Your task to perform on an android device: Go to privacy settings Image 0: 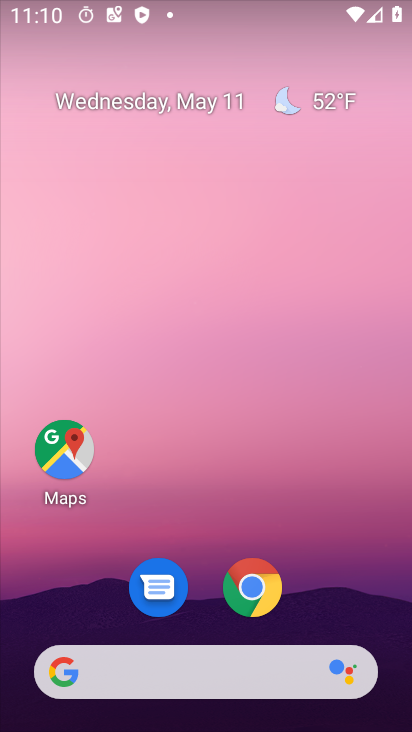
Step 0: drag from (290, 700) to (297, 155)
Your task to perform on an android device: Go to privacy settings Image 1: 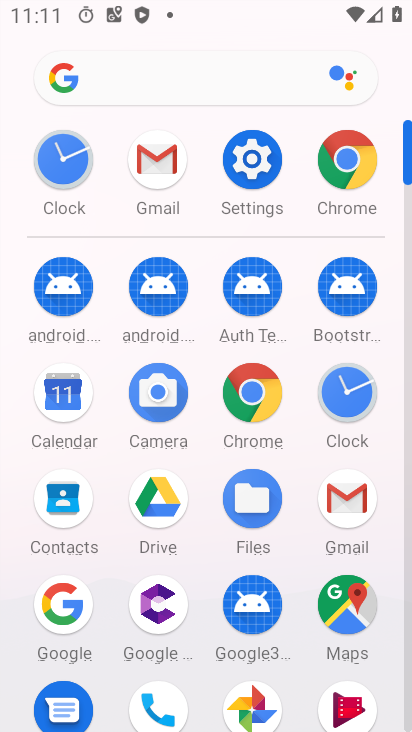
Step 1: click (251, 155)
Your task to perform on an android device: Go to privacy settings Image 2: 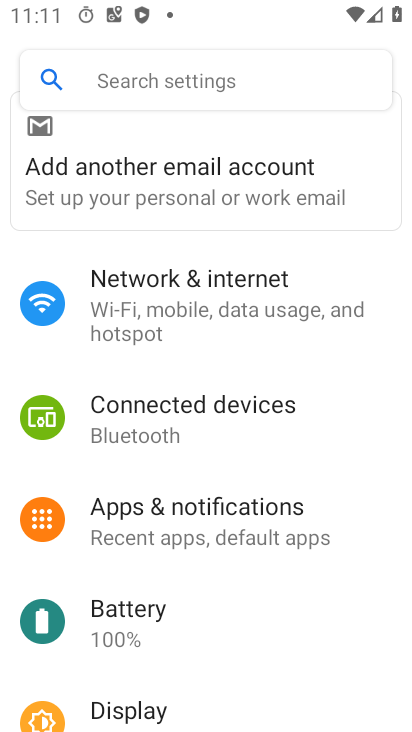
Step 2: drag from (159, 674) to (245, 420)
Your task to perform on an android device: Go to privacy settings Image 3: 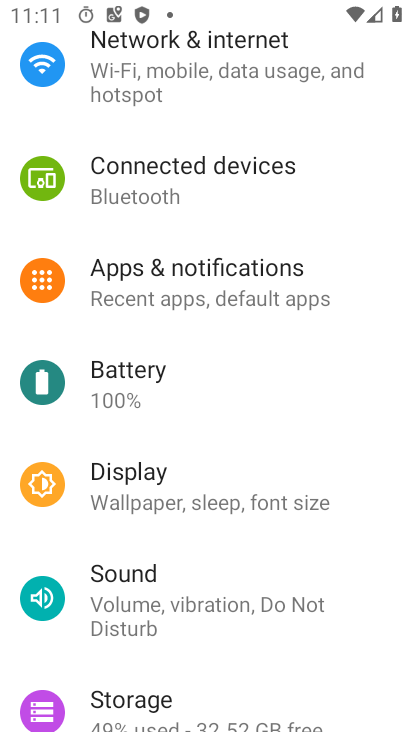
Step 3: drag from (153, 653) to (275, 291)
Your task to perform on an android device: Go to privacy settings Image 4: 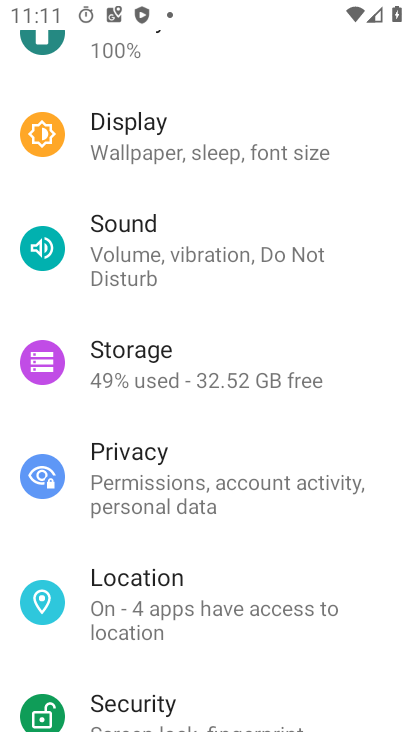
Step 4: click (200, 471)
Your task to perform on an android device: Go to privacy settings Image 5: 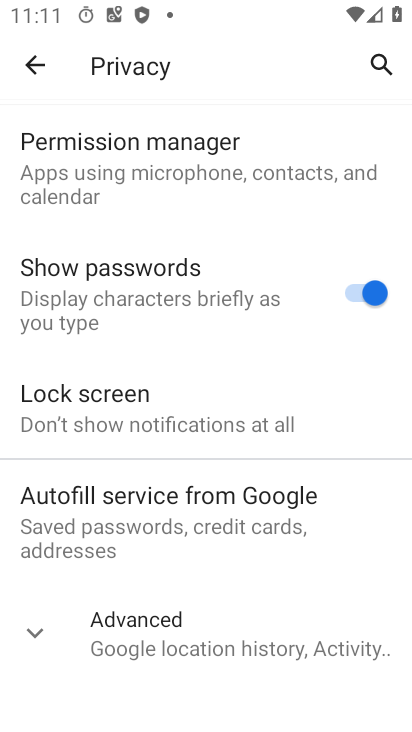
Step 5: task complete